Your task to perform on an android device: Do I have any events this weekend? Image 0: 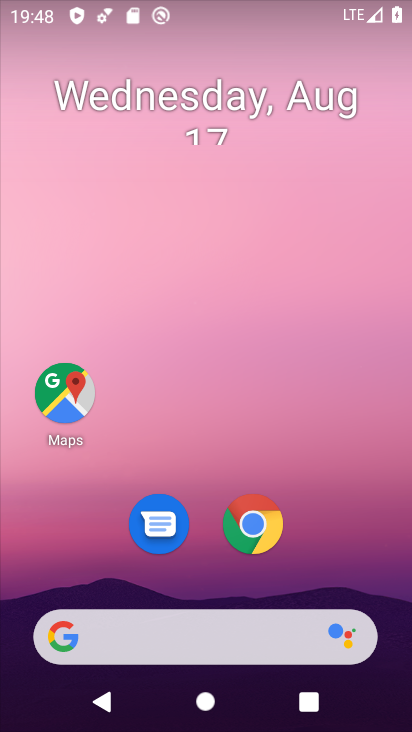
Step 0: drag from (315, 474) to (336, 32)
Your task to perform on an android device: Do I have any events this weekend? Image 1: 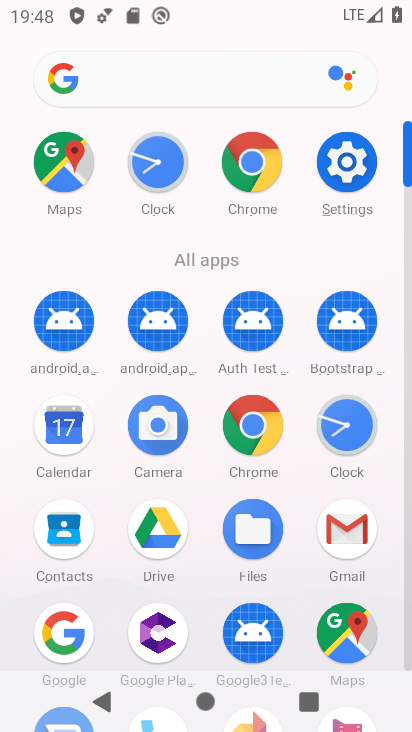
Step 1: click (60, 425)
Your task to perform on an android device: Do I have any events this weekend? Image 2: 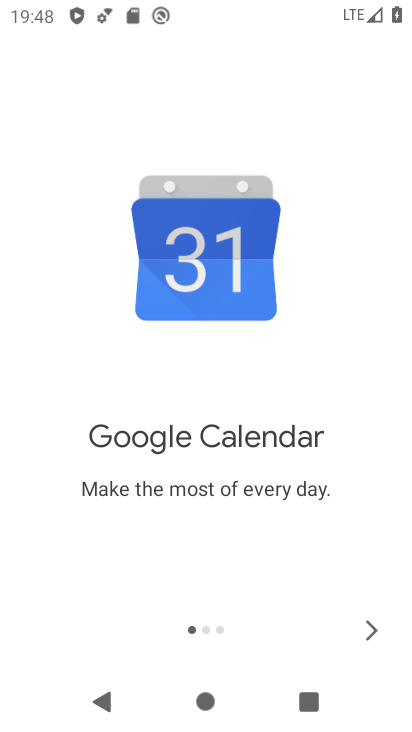
Step 2: click (368, 627)
Your task to perform on an android device: Do I have any events this weekend? Image 3: 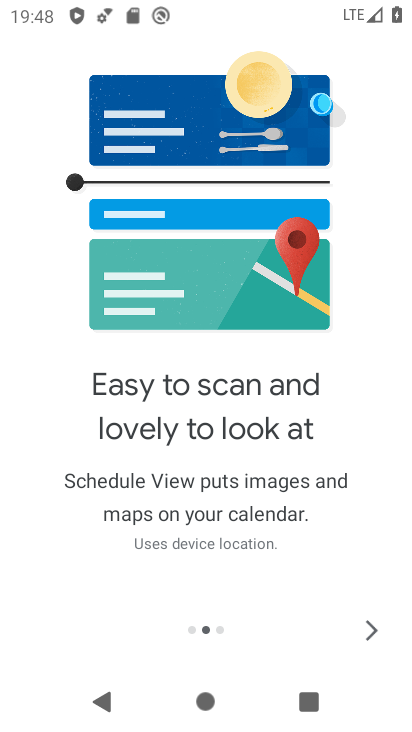
Step 3: click (368, 627)
Your task to perform on an android device: Do I have any events this weekend? Image 4: 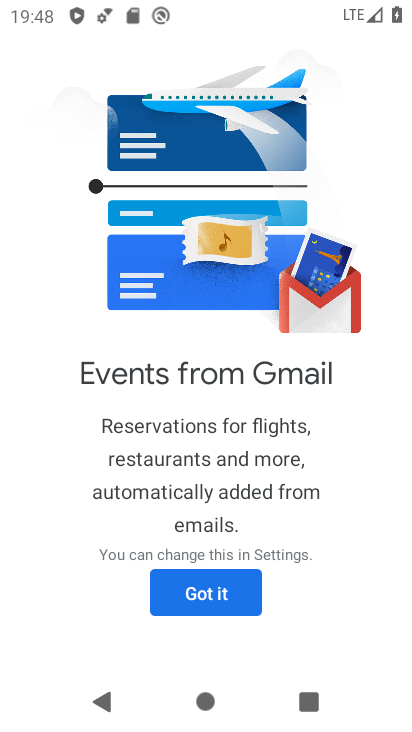
Step 4: click (242, 595)
Your task to perform on an android device: Do I have any events this weekend? Image 5: 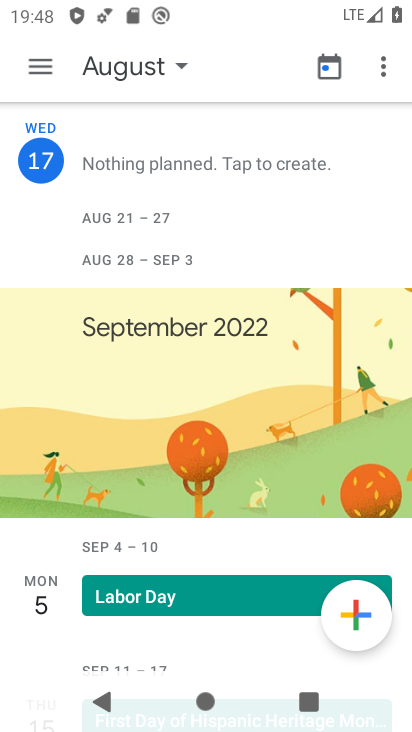
Step 5: click (42, 62)
Your task to perform on an android device: Do I have any events this weekend? Image 6: 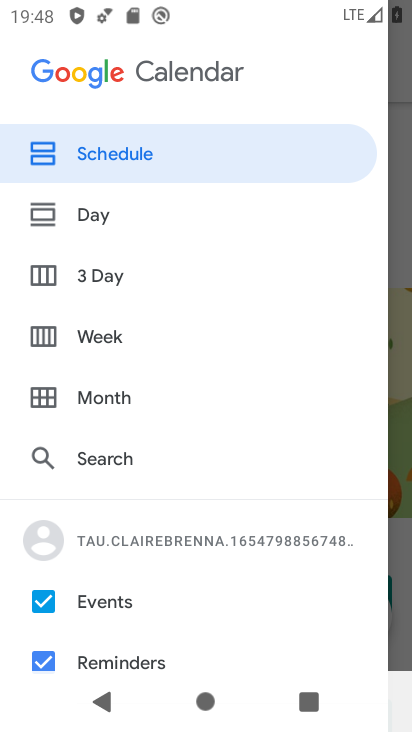
Step 6: click (40, 327)
Your task to perform on an android device: Do I have any events this weekend? Image 7: 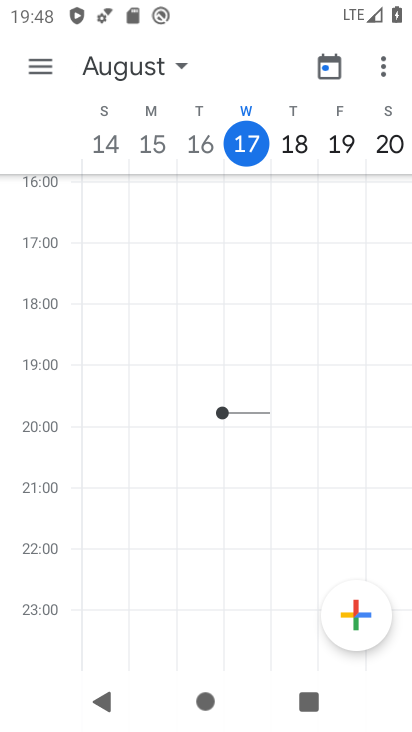
Step 7: task complete